Your task to perform on an android device: Open battery settings Image 0: 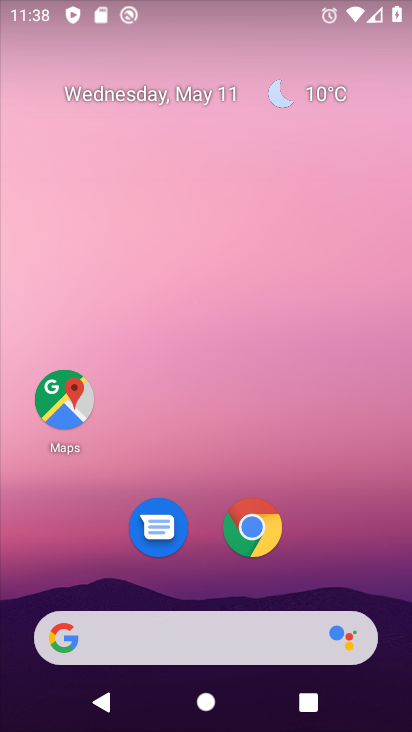
Step 0: drag from (206, 588) to (296, 55)
Your task to perform on an android device: Open battery settings Image 1: 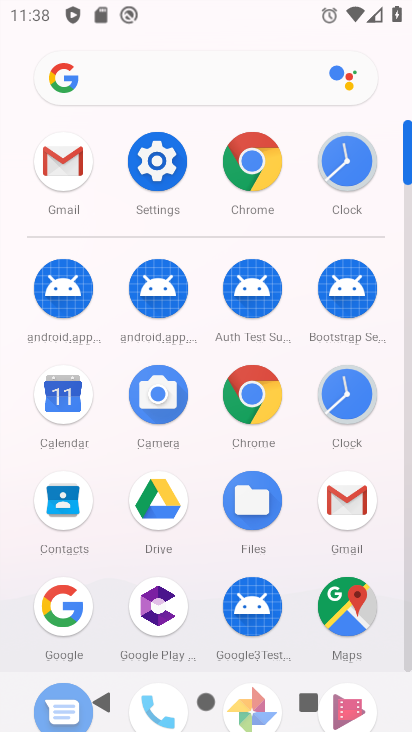
Step 1: click (170, 182)
Your task to perform on an android device: Open battery settings Image 2: 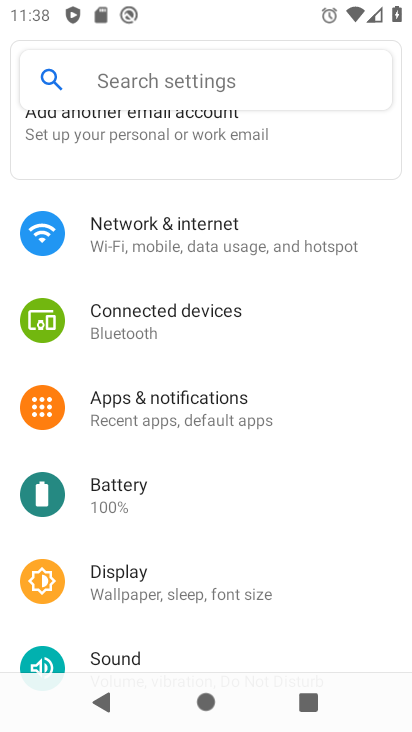
Step 2: click (140, 508)
Your task to perform on an android device: Open battery settings Image 3: 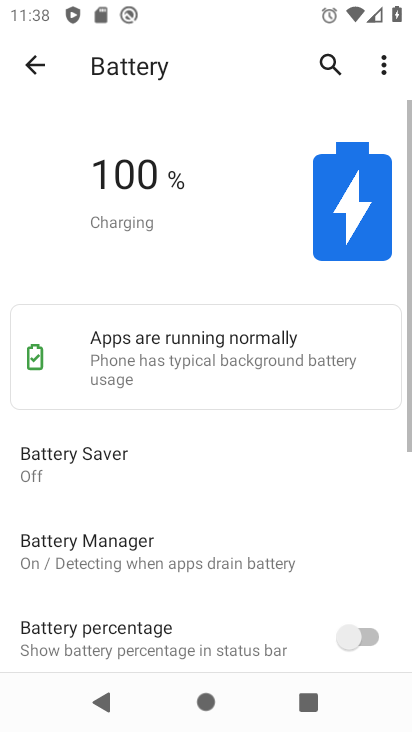
Step 3: task complete